Your task to perform on an android device: Open calendar and show me the fourth week of next month Image 0: 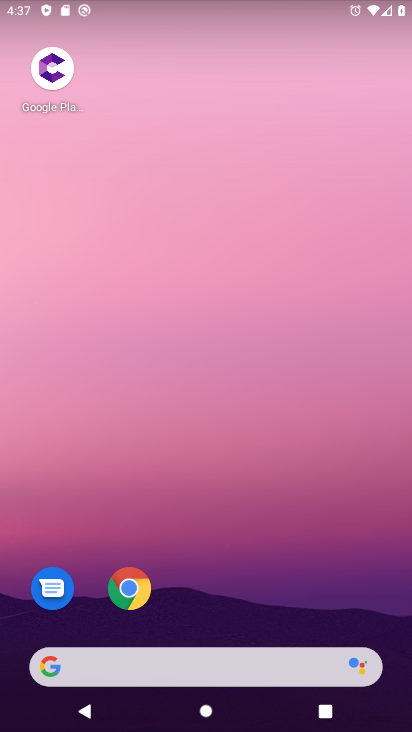
Step 0: drag from (307, 394) to (300, 7)
Your task to perform on an android device: Open calendar and show me the fourth week of next month Image 1: 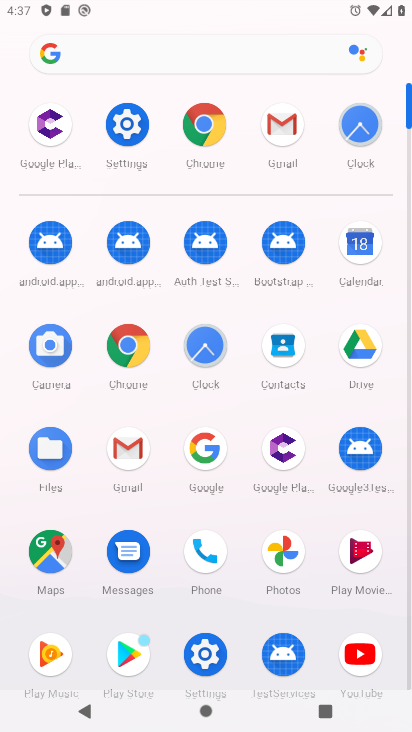
Step 1: click (358, 248)
Your task to perform on an android device: Open calendar and show me the fourth week of next month Image 2: 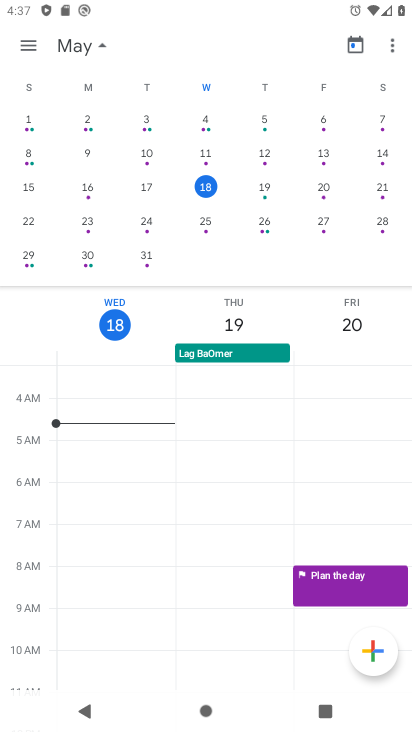
Step 2: drag from (365, 175) to (0, 150)
Your task to perform on an android device: Open calendar and show me the fourth week of next month Image 3: 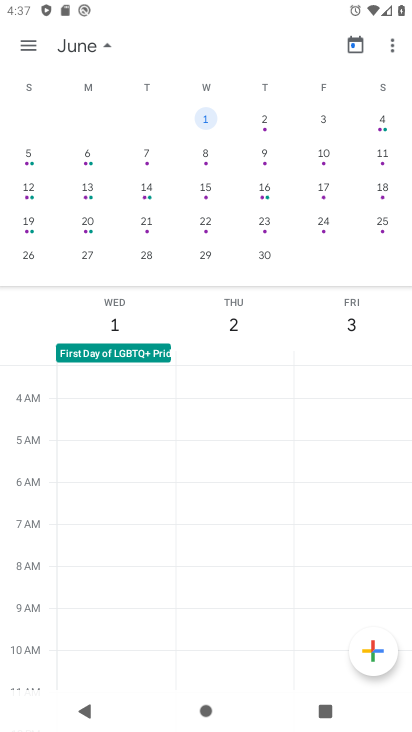
Step 3: click (28, 254)
Your task to perform on an android device: Open calendar and show me the fourth week of next month Image 4: 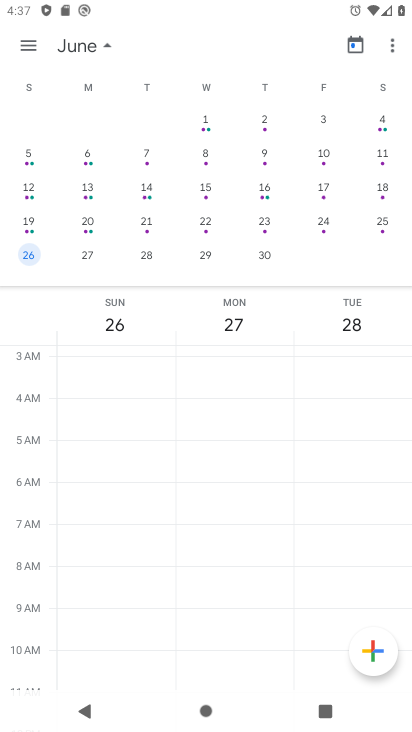
Step 4: click (36, 44)
Your task to perform on an android device: Open calendar and show me the fourth week of next month Image 5: 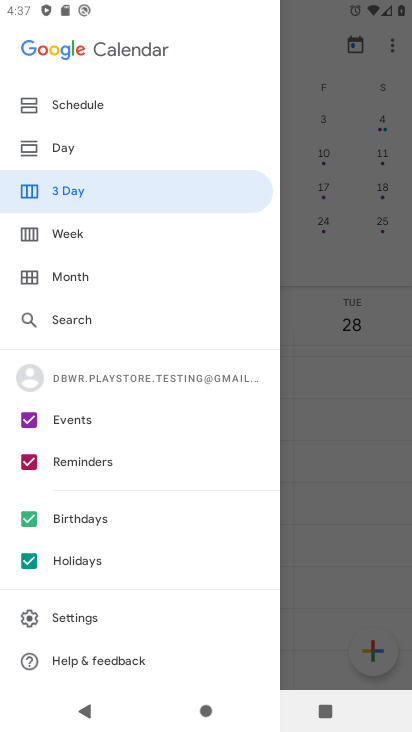
Step 5: click (87, 239)
Your task to perform on an android device: Open calendar and show me the fourth week of next month Image 6: 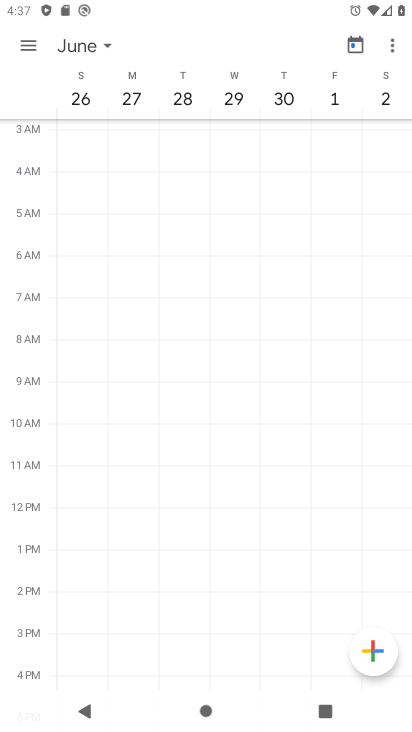
Step 6: task complete